Your task to perform on an android device: toggle show notifications on the lock screen Image 0: 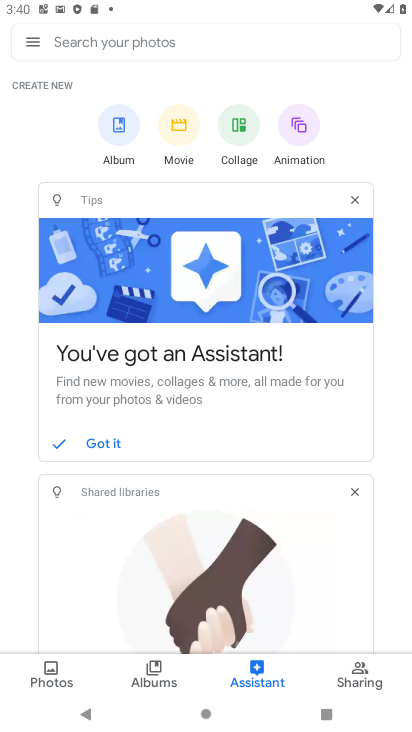
Step 0: press home button
Your task to perform on an android device: toggle show notifications on the lock screen Image 1: 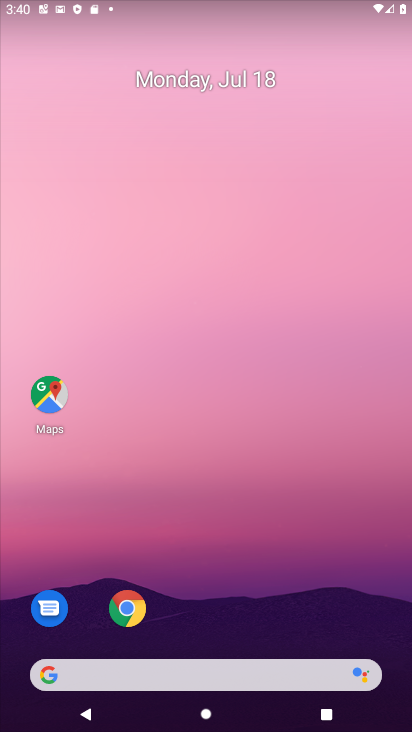
Step 1: drag from (220, 675) to (299, 128)
Your task to perform on an android device: toggle show notifications on the lock screen Image 2: 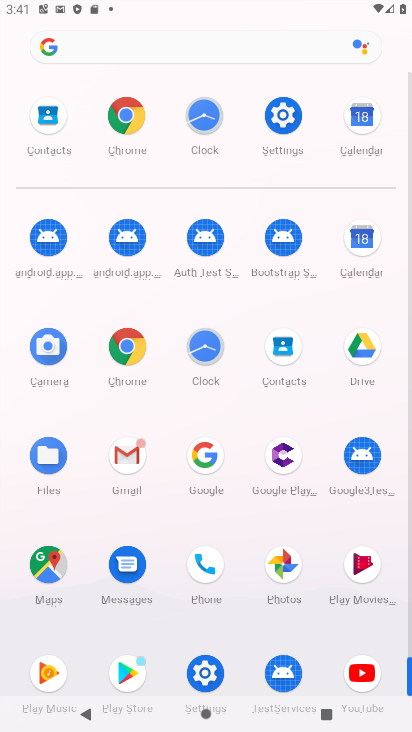
Step 2: click (295, 127)
Your task to perform on an android device: toggle show notifications on the lock screen Image 3: 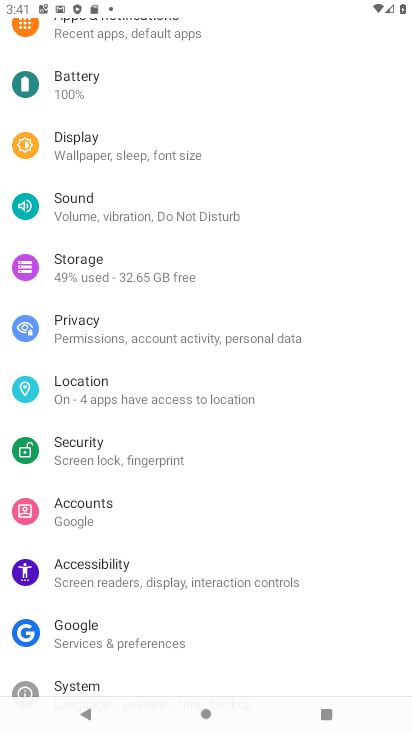
Step 3: drag from (220, 360) to (176, 526)
Your task to perform on an android device: toggle show notifications on the lock screen Image 4: 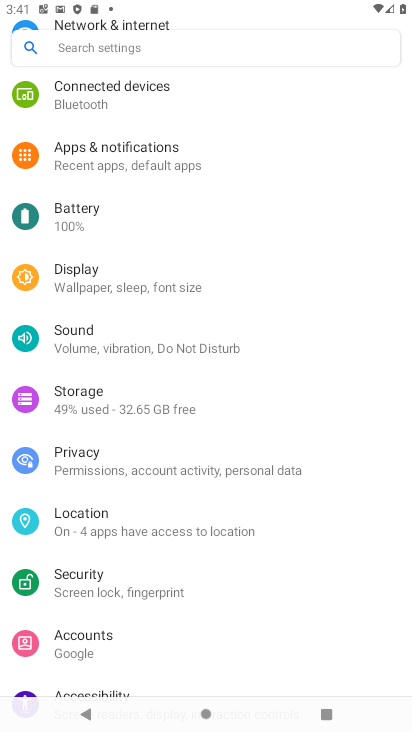
Step 4: click (161, 157)
Your task to perform on an android device: toggle show notifications on the lock screen Image 5: 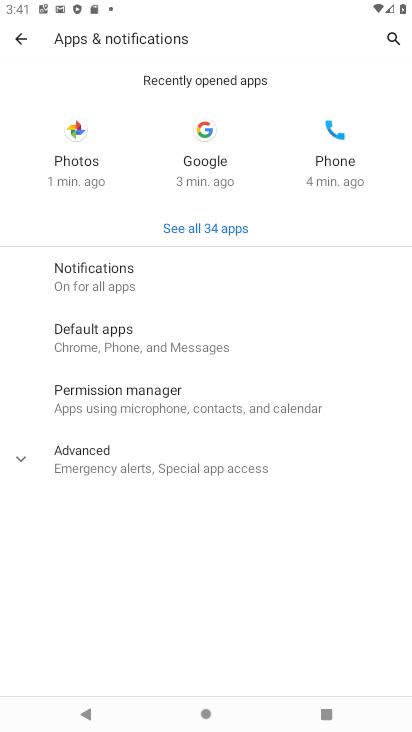
Step 5: click (185, 281)
Your task to perform on an android device: toggle show notifications on the lock screen Image 6: 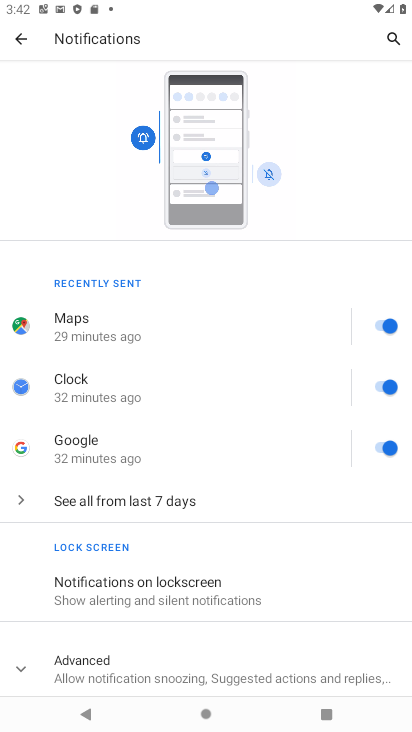
Step 6: click (115, 589)
Your task to perform on an android device: toggle show notifications on the lock screen Image 7: 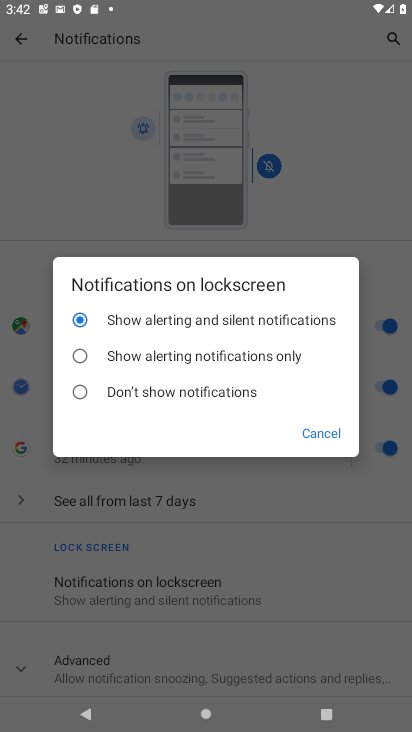
Step 7: click (102, 395)
Your task to perform on an android device: toggle show notifications on the lock screen Image 8: 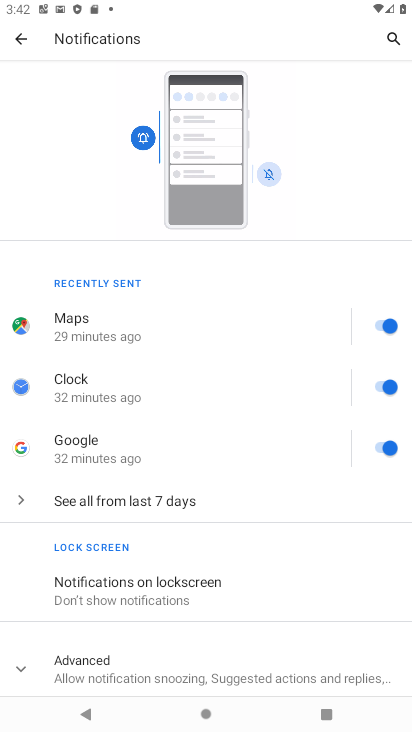
Step 8: task complete